Your task to perform on an android device: turn off notifications settings in the gmail app Image 0: 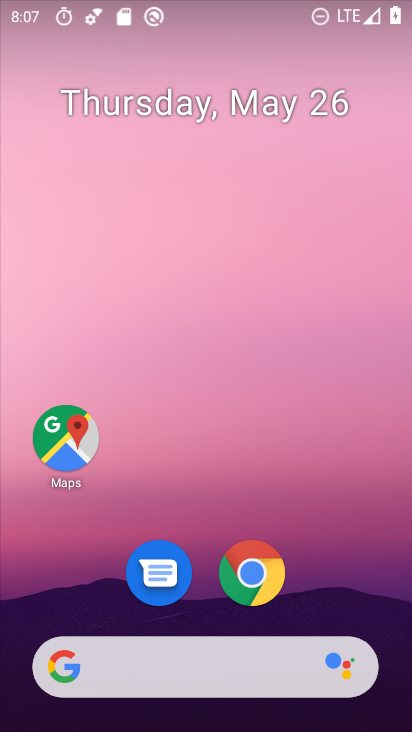
Step 0: drag from (323, 583) to (152, 4)
Your task to perform on an android device: turn off notifications settings in the gmail app Image 1: 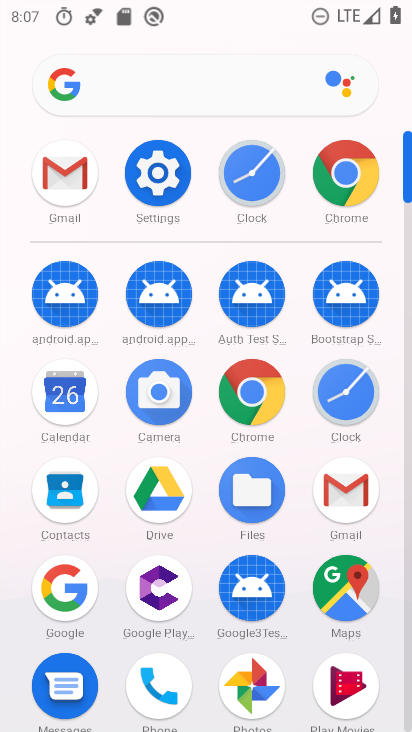
Step 1: drag from (19, 584) to (13, 274)
Your task to perform on an android device: turn off notifications settings in the gmail app Image 2: 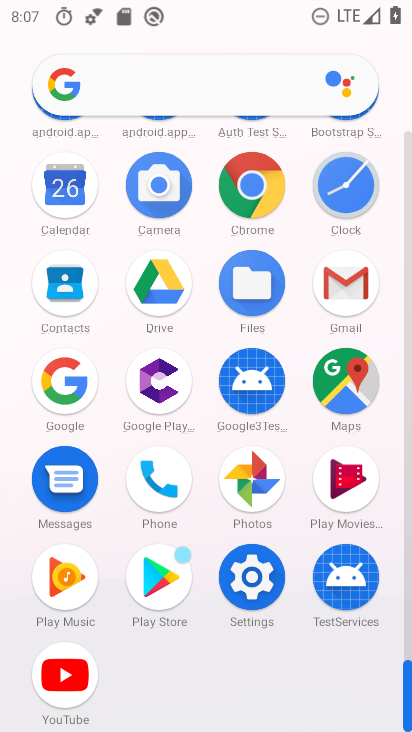
Step 2: click (344, 278)
Your task to perform on an android device: turn off notifications settings in the gmail app Image 3: 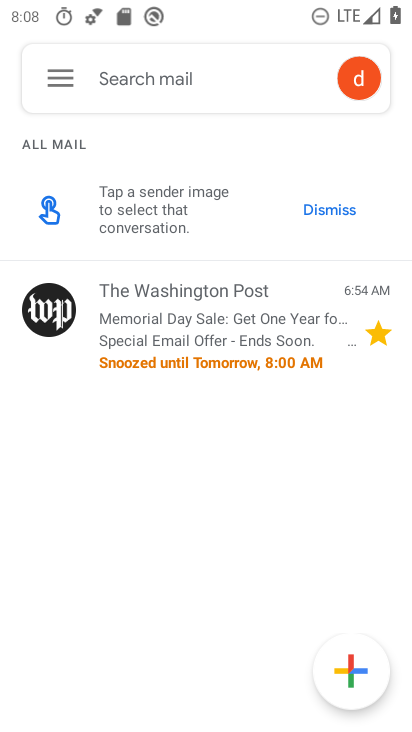
Step 3: click (61, 71)
Your task to perform on an android device: turn off notifications settings in the gmail app Image 4: 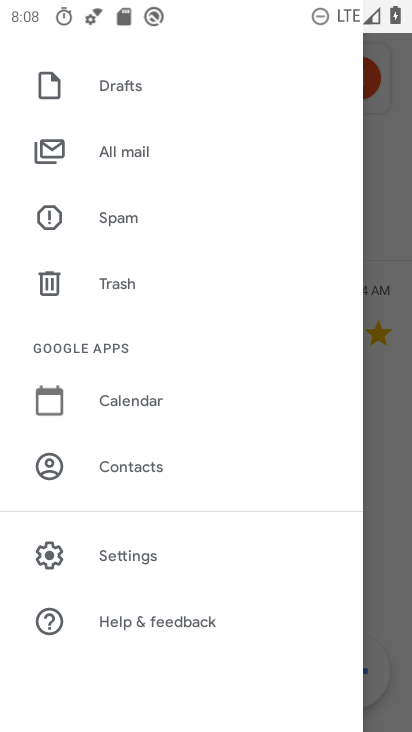
Step 4: drag from (249, 611) to (232, 153)
Your task to perform on an android device: turn off notifications settings in the gmail app Image 5: 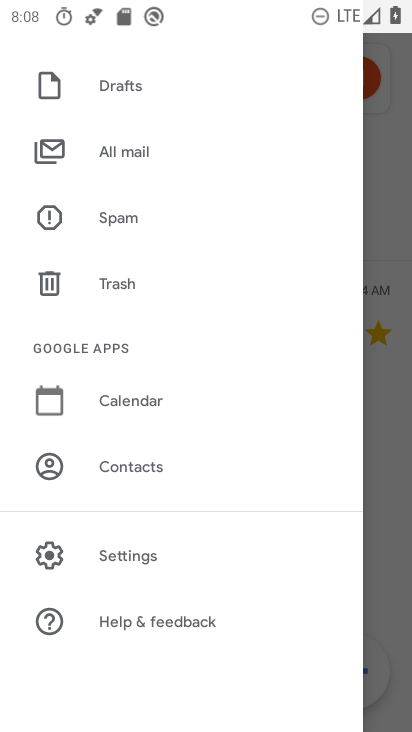
Step 5: click (132, 556)
Your task to perform on an android device: turn off notifications settings in the gmail app Image 6: 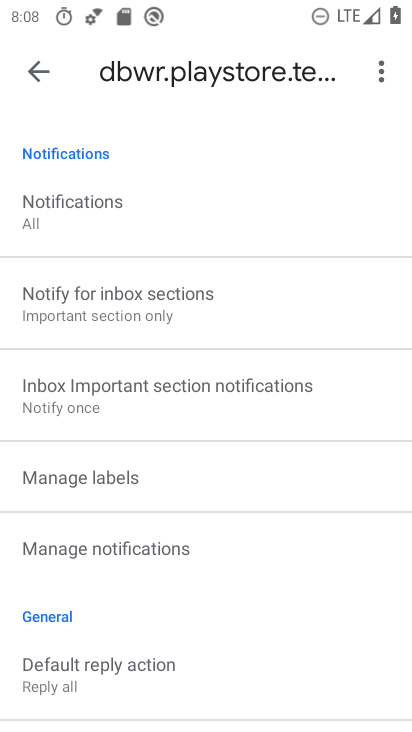
Step 6: click (155, 538)
Your task to perform on an android device: turn off notifications settings in the gmail app Image 7: 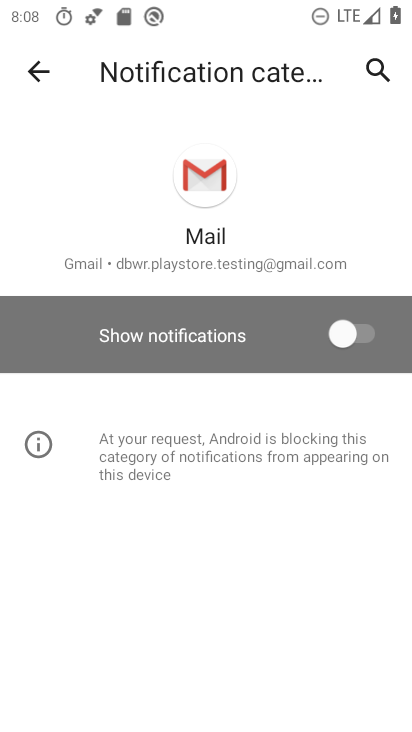
Step 7: task complete